Your task to perform on an android device: Go to sound settings Image 0: 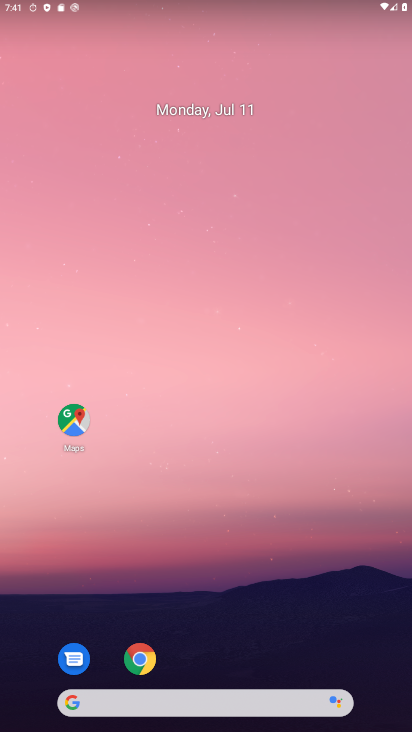
Step 0: drag from (180, 630) to (123, 12)
Your task to perform on an android device: Go to sound settings Image 1: 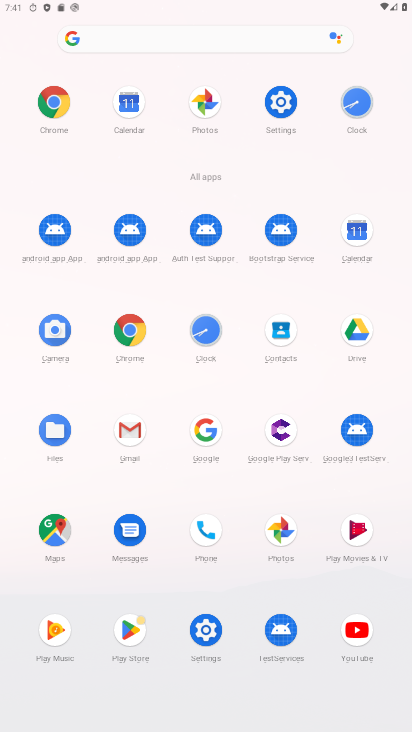
Step 1: click (276, 91)
Your task to perform on an android device: Go to sound settings Image 2: 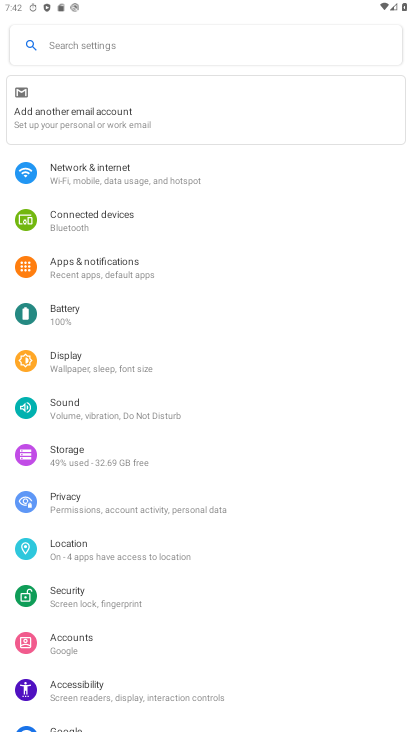
Step 2: click (73, 407)
Your task to perform on an android device: Go to sound settings Image 3: 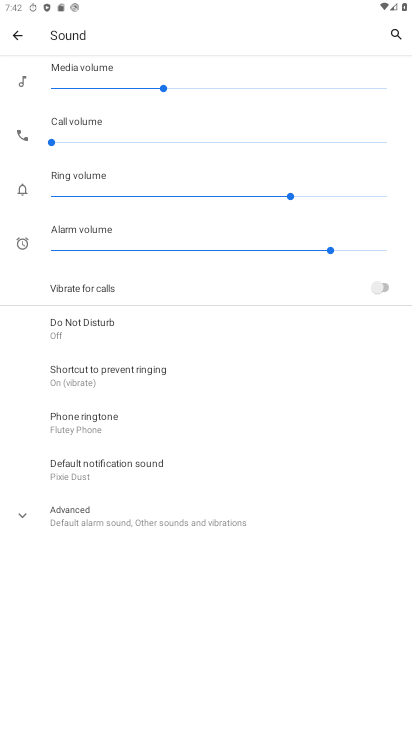
Step 3: task complete